Your task to perform on an android device: see sites visited before in the chrome app Image 0: 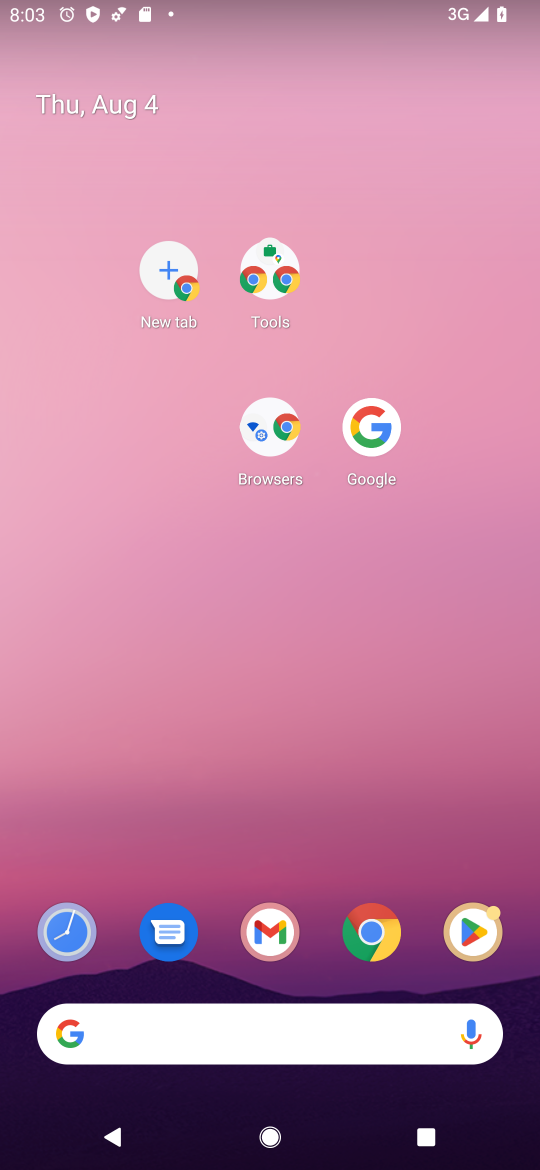
Step 0: drag from (405, 1123) to (259, 444)
Your task to perform on an android device: see sites visited before in the chrome app Image 1: 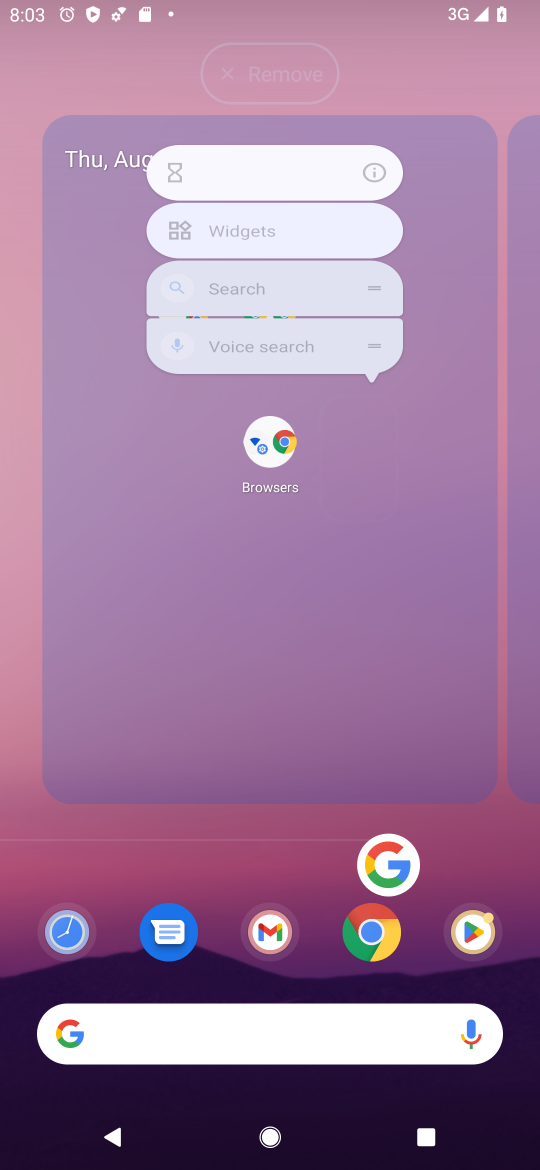
Step 1: drag from (260, 799) to (257, 377)
Your task to perform on an android device: see sites visited before in the chrome app Image 2: 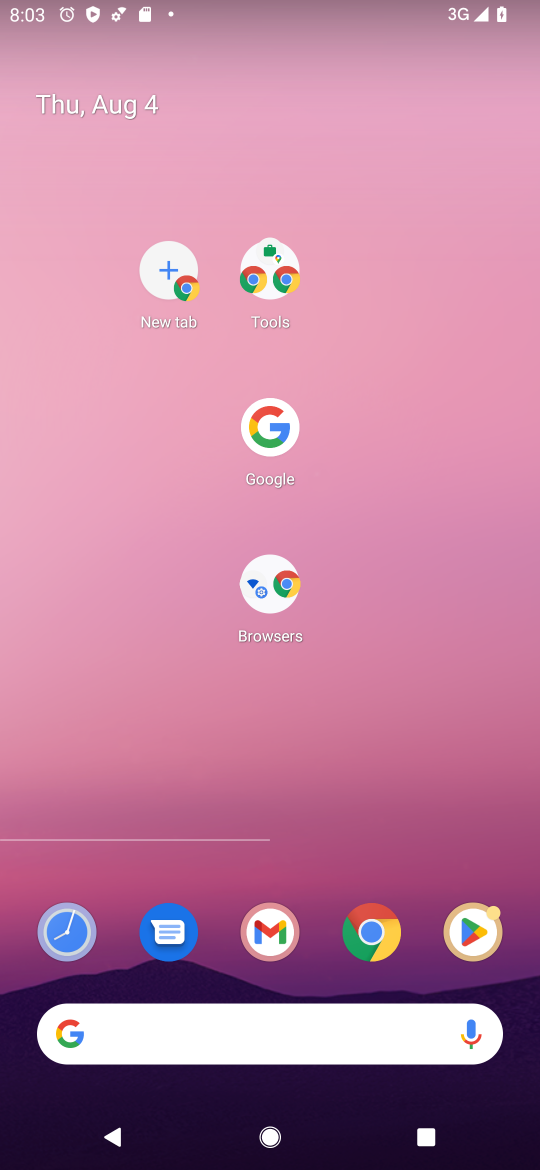
Step 2: drag from (354, 594) to (321, 311)
Your task to perform on an android device: see sites visited before in the chrome app Image 3: 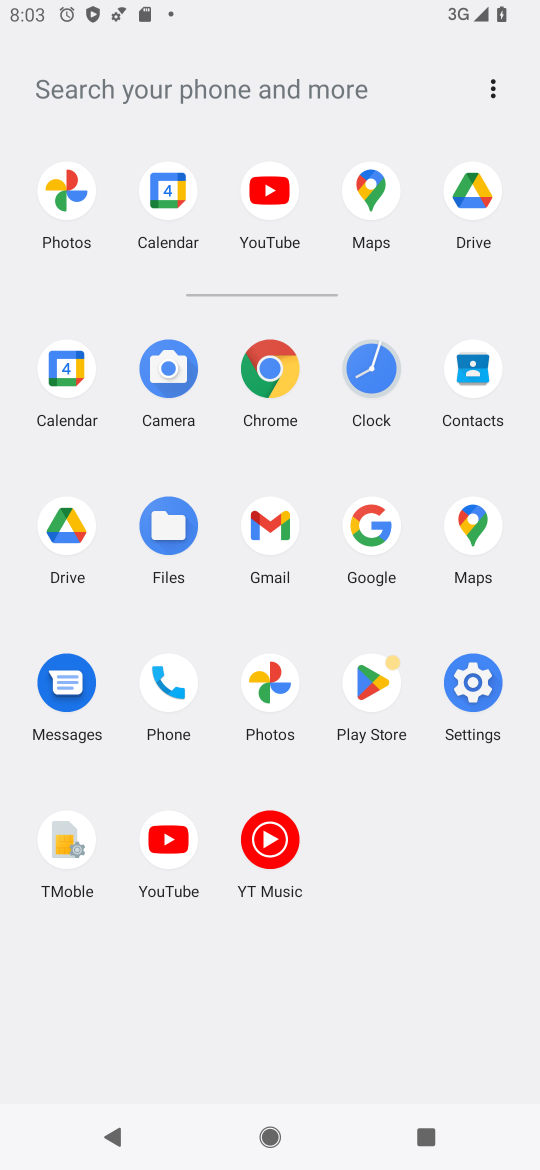
Step 3: press back button
Your task to perform on an android device: see sites visited before in the chrome app Image 4: 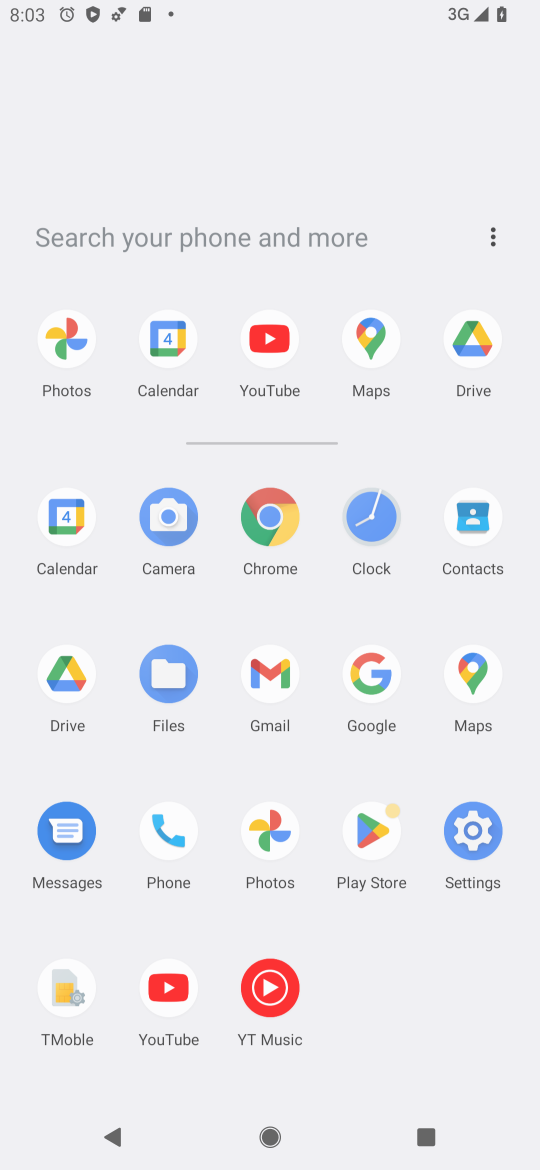
Step 4: press back button
Your task to perform on an android device: see sites visited before in the chrome app Image 5: 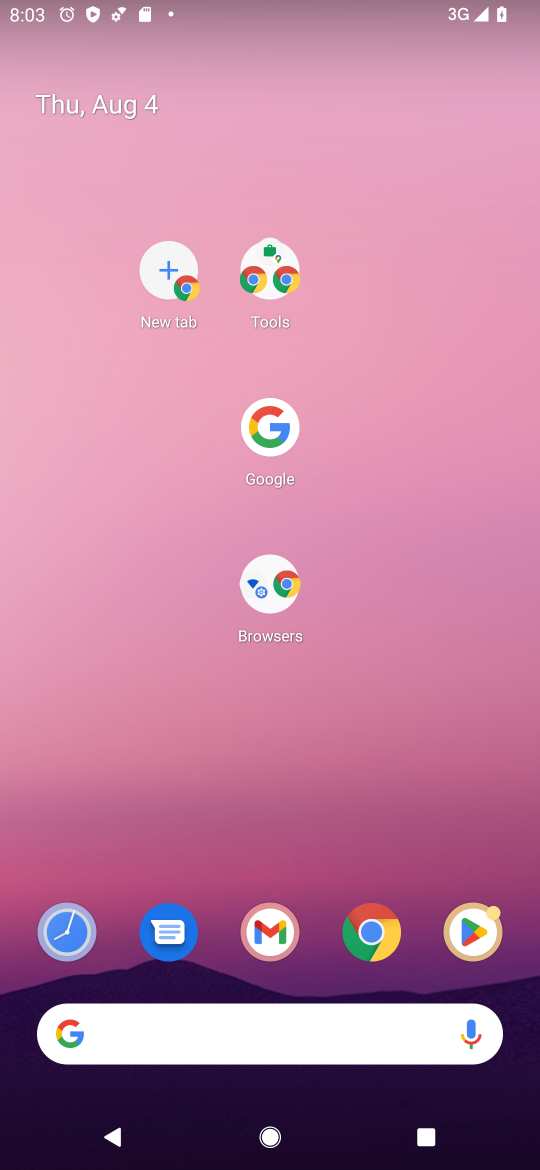
Step 5: drag from (243, 266) to (284, 234)
Your task to perform on an android device: see sites visited before in the chrome app Image 6: 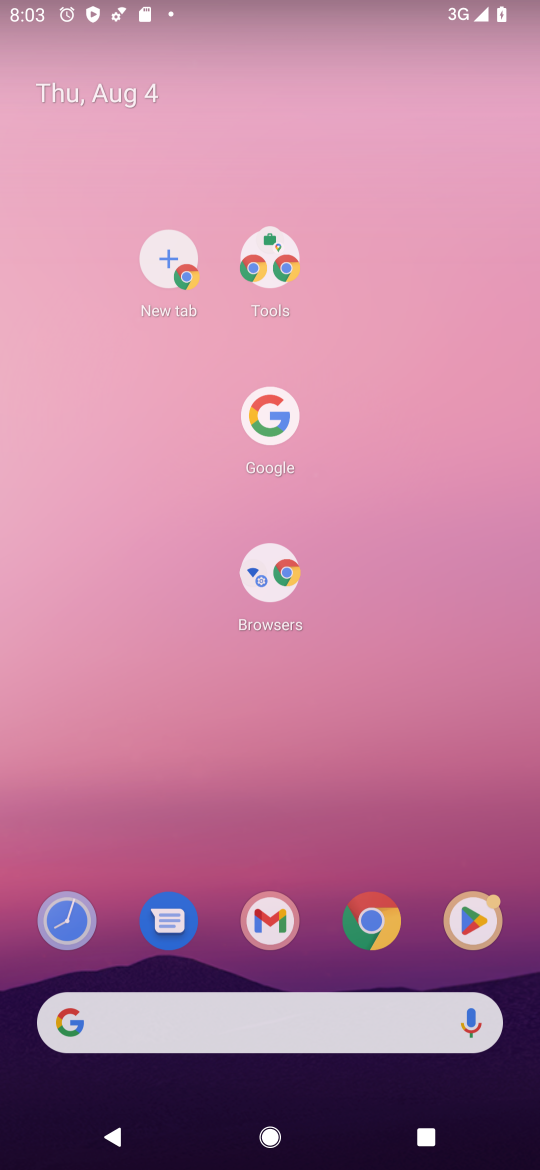
Step 6: drag from (289, 629) to (270, 62)
Your task to perform on an android device: see sites visited before in the chrome app Image 7: 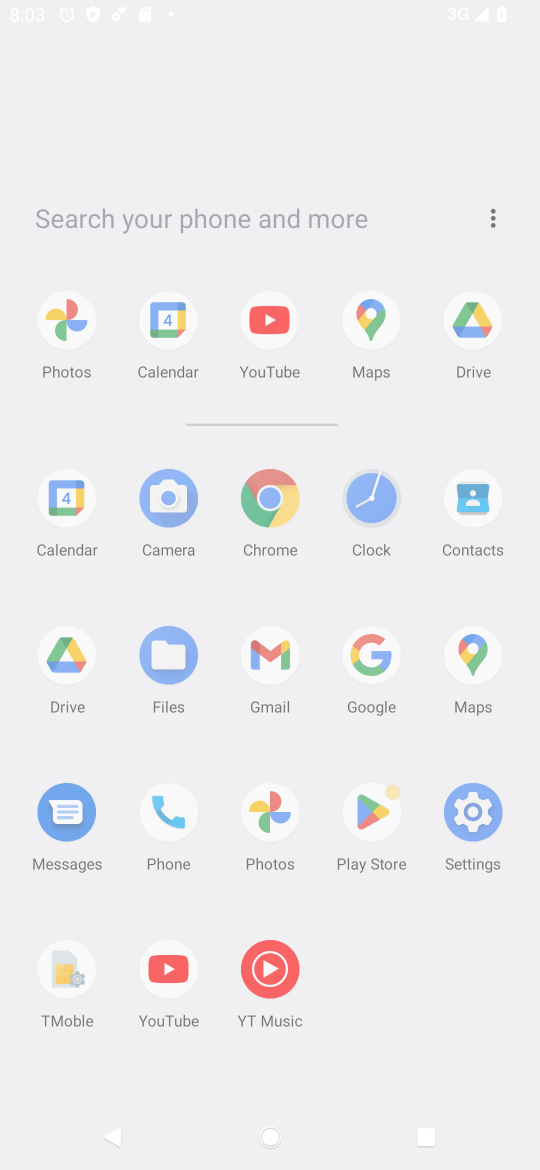
Step 7: drag from (235, 686) to (228, 71)
Your task to perform on an android device: see sites visited before in the chrome app Image 8: 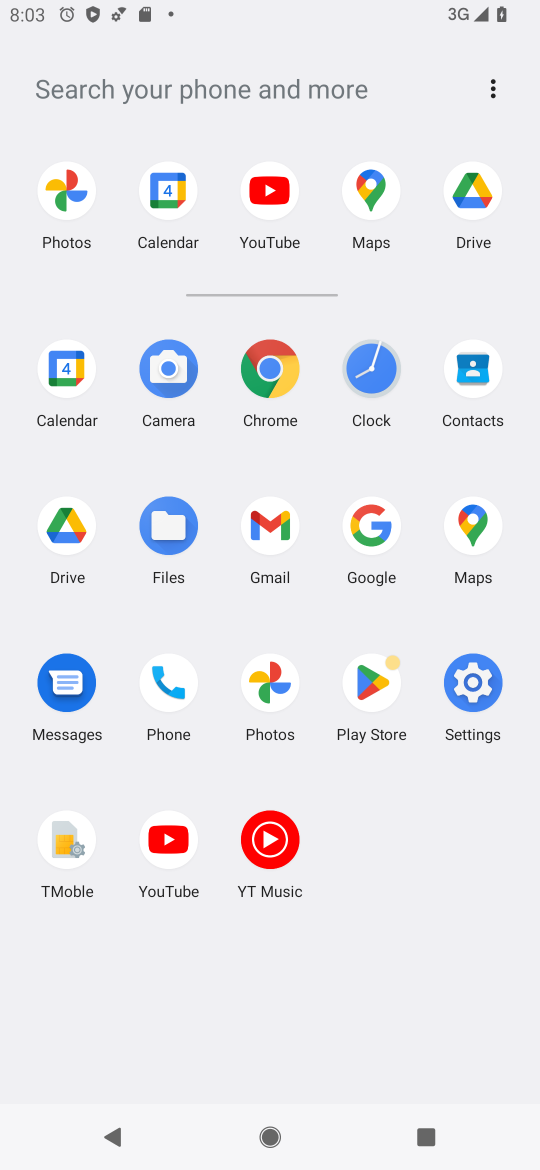
Step 8: click (270, 367)
Your task to perform on an android device: see sites visited before in the chrome app Image 9: 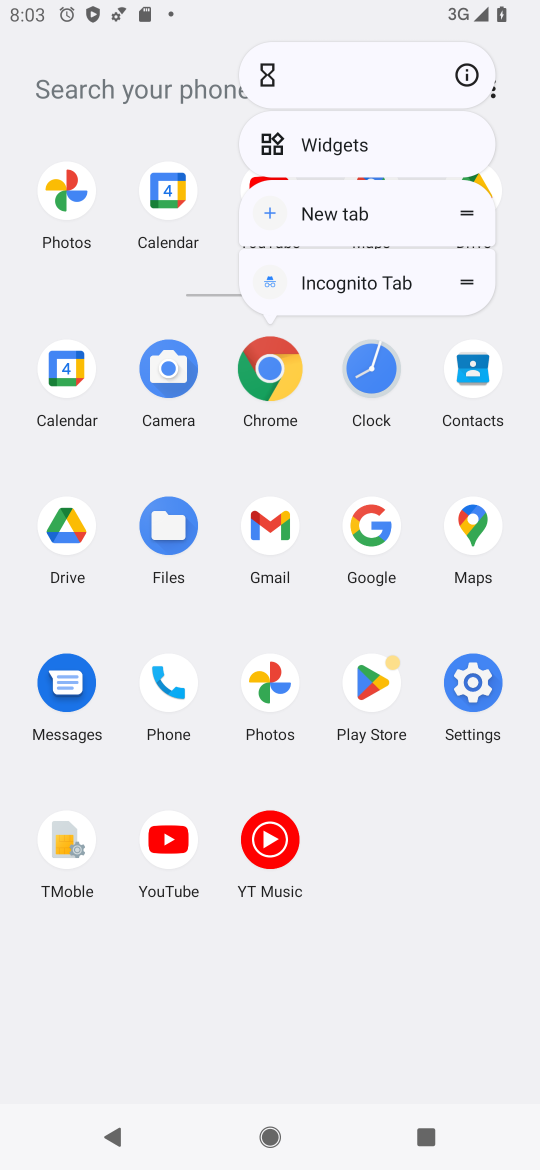
Step 9: click (271, 366)
Your task to perform on an android device: see sites visited before in the chrome app Image 10: 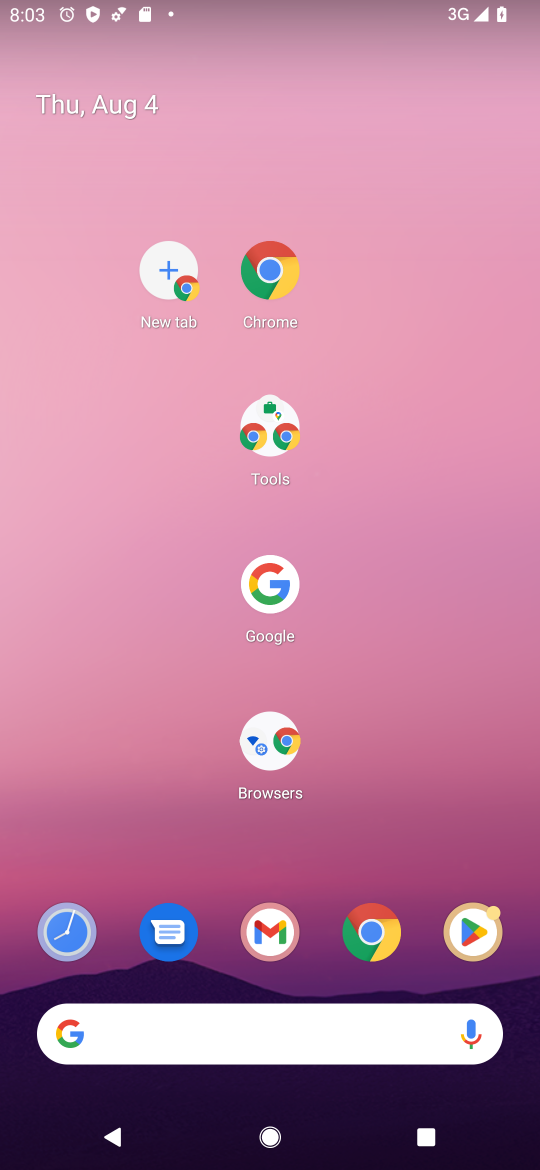
Step 10: drag from (325, 681) to (250, 293)
Your task to perform on an android device: see sites visited before in the chrome app Image 11: 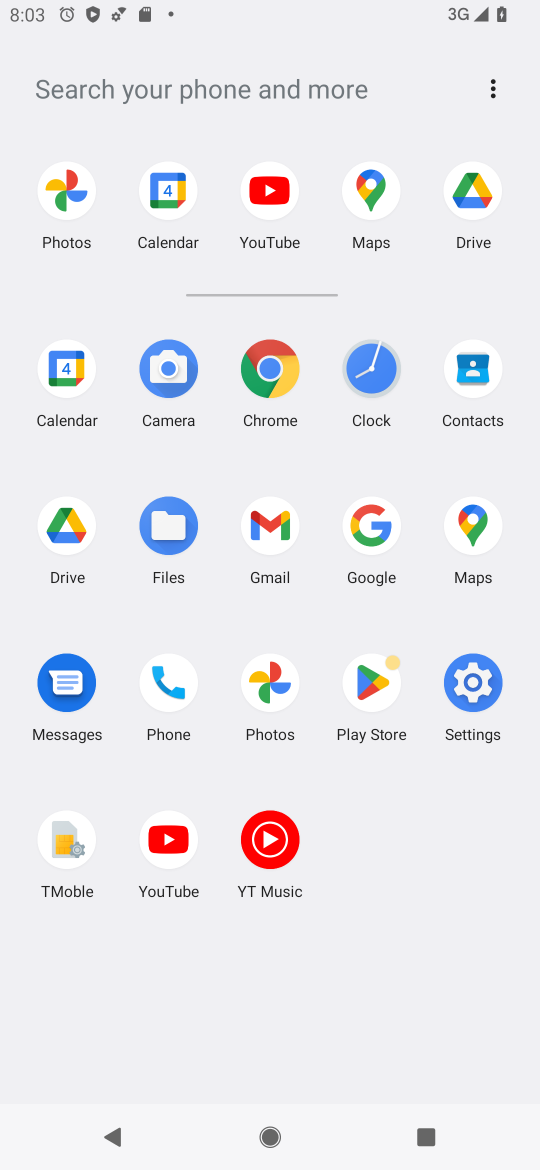
Step 11: click (273, 376)
Your task to perform on an android device: see sites visited before in the chrome app Image 12: 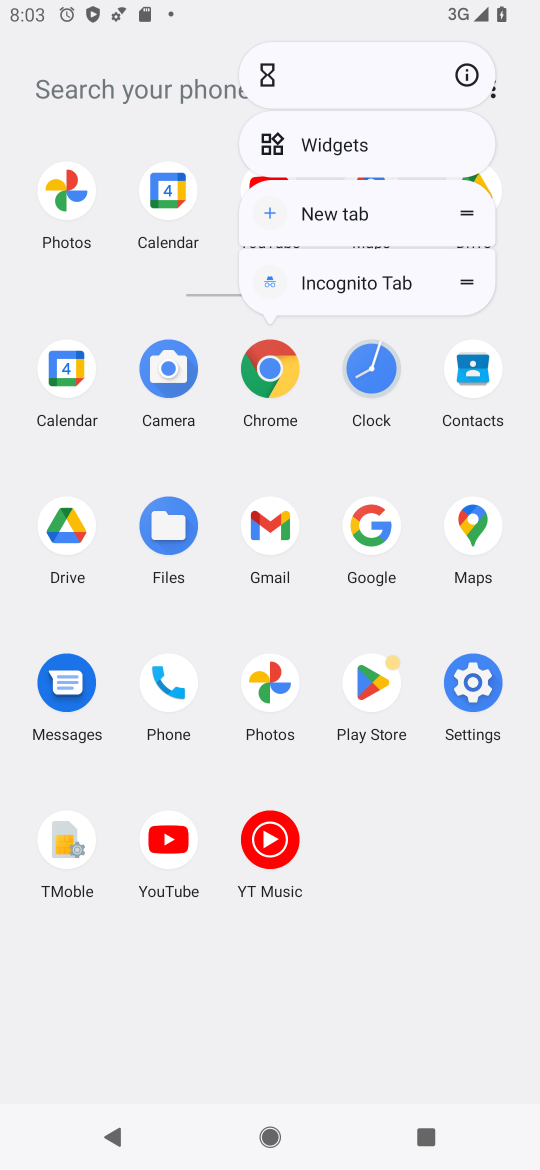
Step 12: click (268, 364)
Your task to perform on an android device: see sites visited before in the chrome app Image 13: 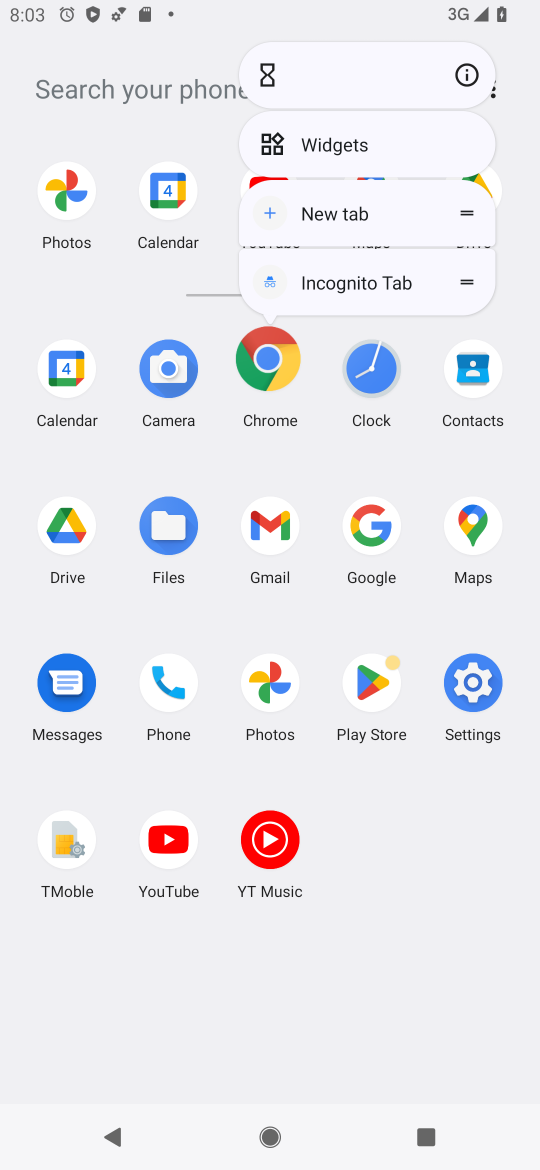
Step 13: click (266, 354)
Your task to perform on an android device: see sites visited before in the chrome app Image 14: 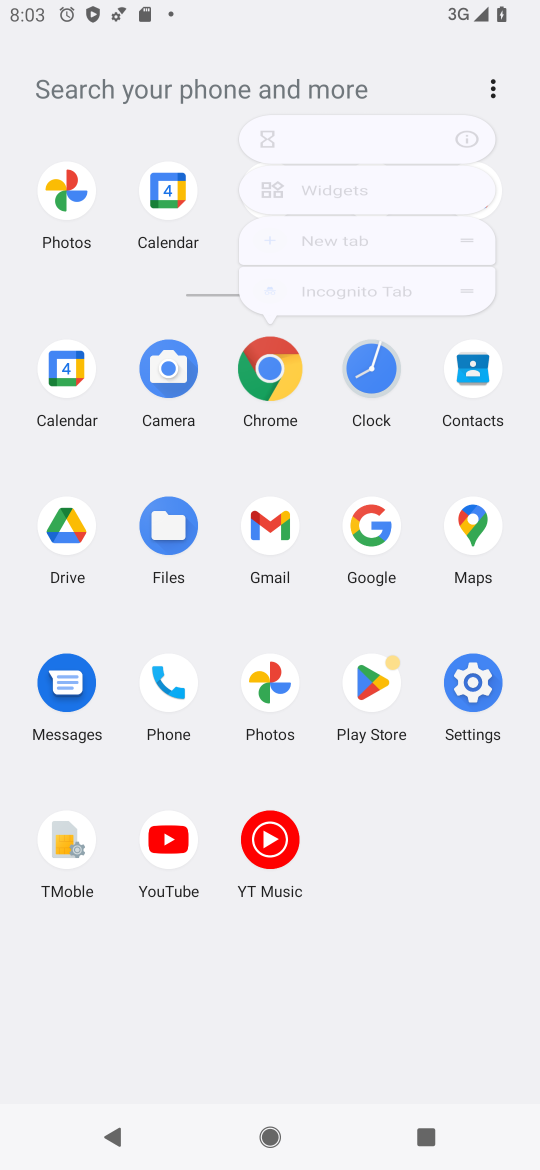
Step 14: click (266, 358)
Your task to perform on an android device: see sites visited before in the chrome app Image 15: 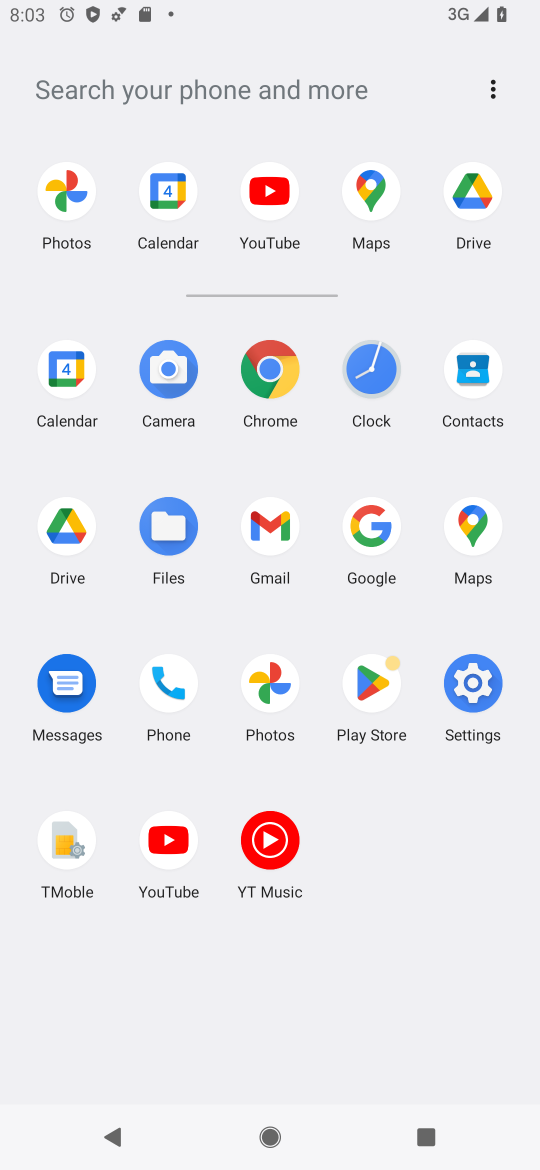
Step 15: click (266, 368)
Your task to perform on an android device: see sites visited before in the chrome app Image 16: 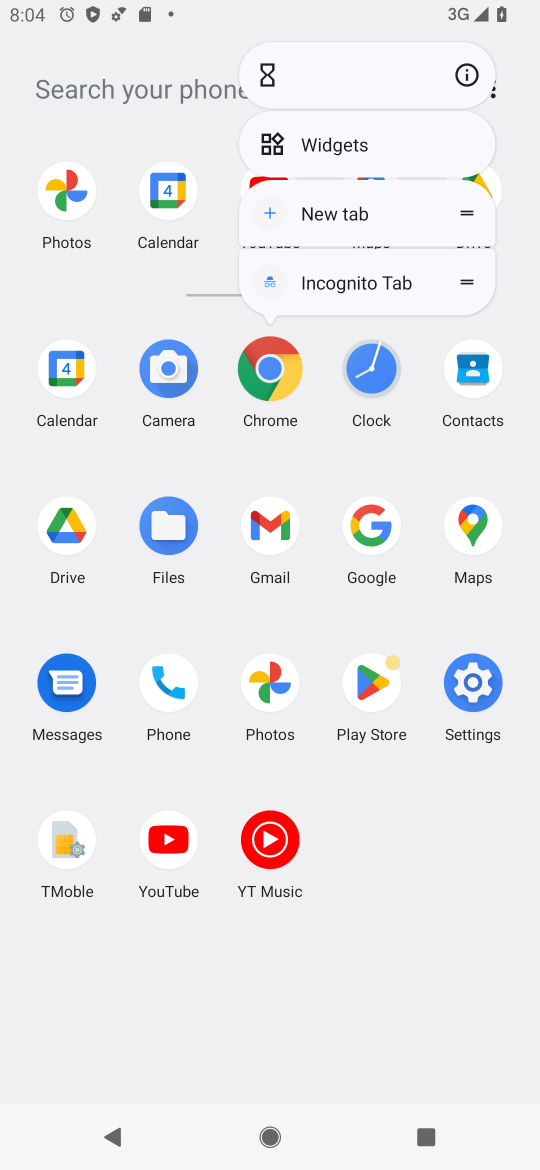
Step 16: click (274, 371)
Your task to perform on an android device: see sites visited before in the chrome app Image 17: 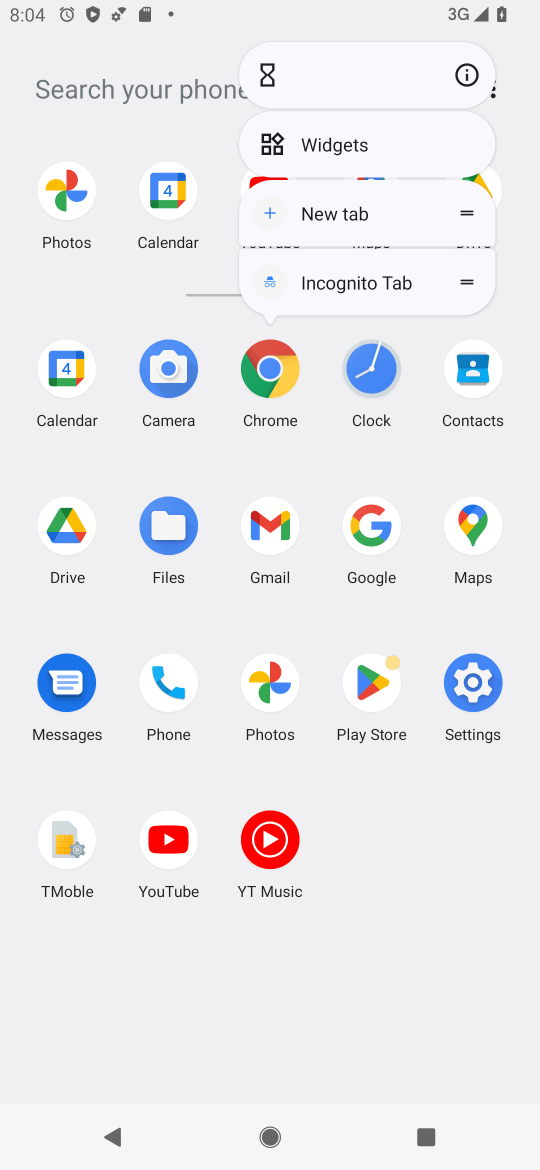
Step 17: click (267, 411)
Your task to perform on an android device: see sites visited before in the chrome app Image 18: 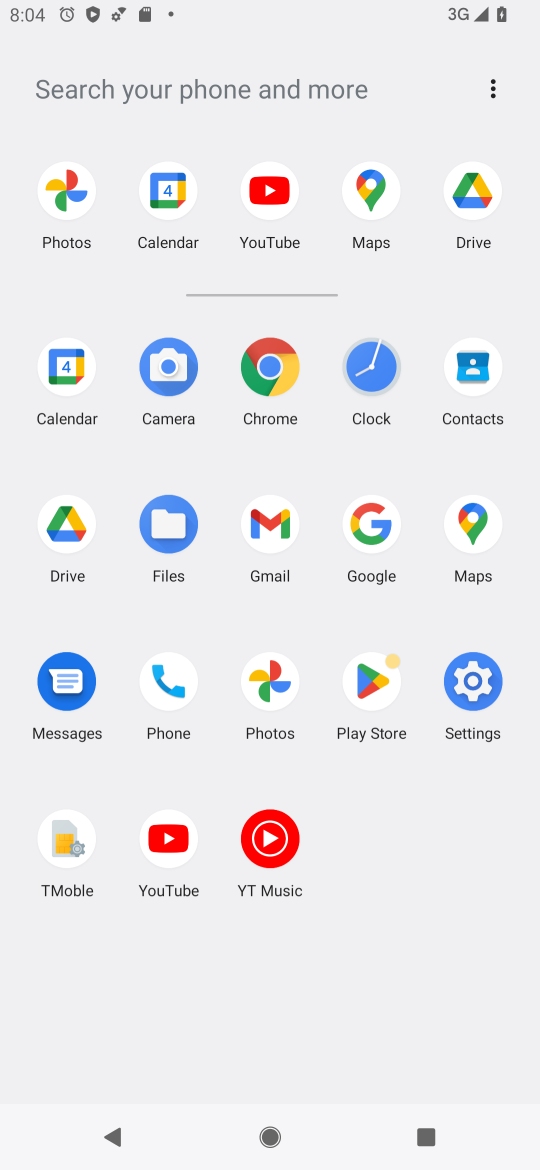
Step 18: click (276, 383)
Your task to perform on an android device: see sites visited before in the chrome app Image 19: 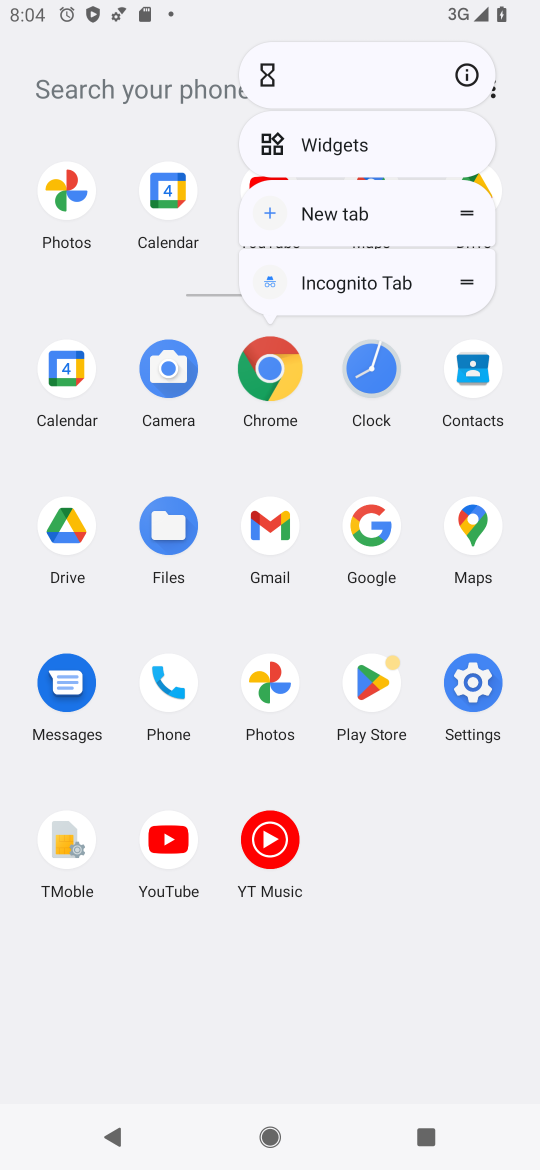
Step 19: click (276, 383)
Your task to perform on an android device: see sites visited before in the chrome app Image 20: 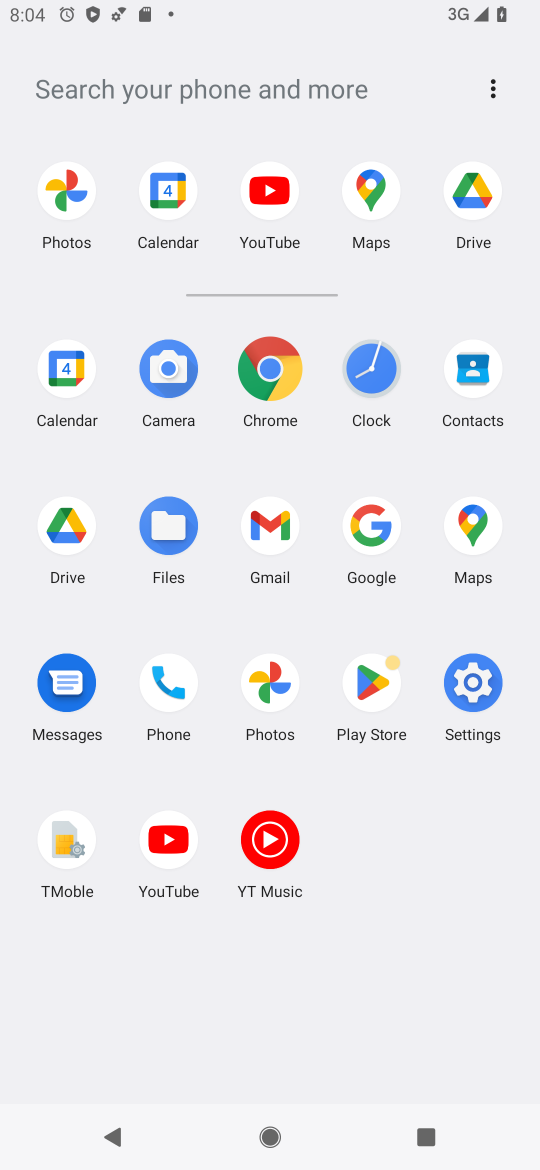
Step 20: click (338, 209)
Your task to perform on an android device: see sites visited before in the chrome app Image 21: 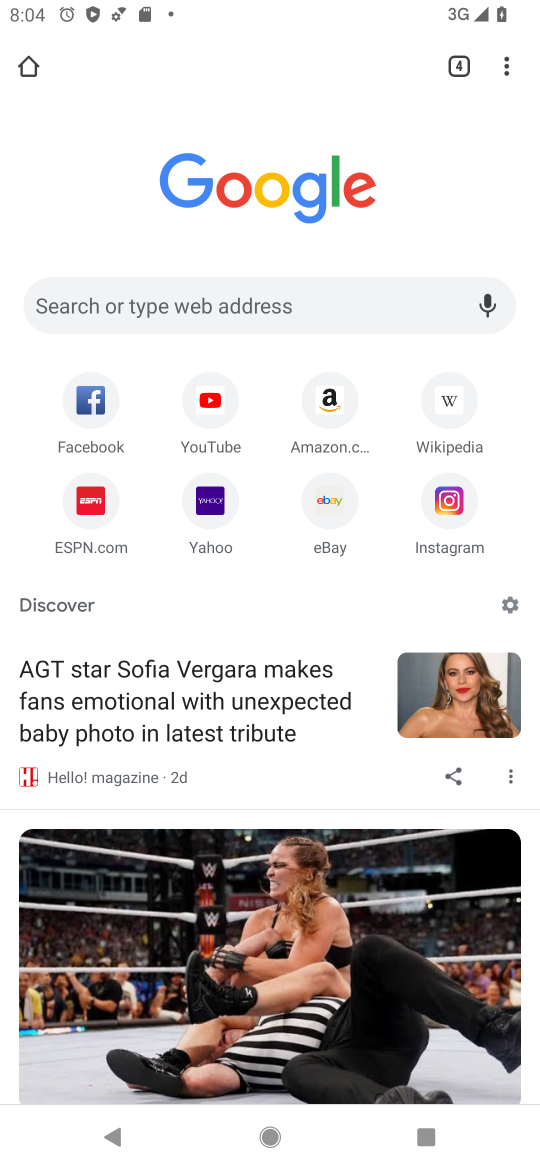
Step 21: drag from (502, 56) to (335, 500)
Your task to perform on an android device: see sites visited before in the chrome app Image 22: 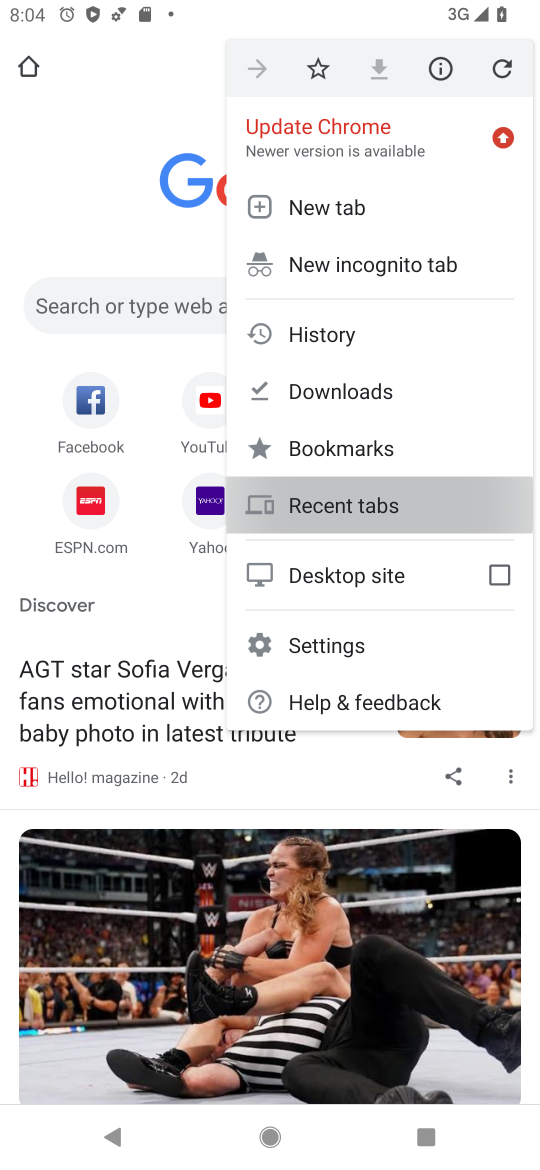
Step 22: click (335, 500)
Your task to perform on an android device: see sites visited before in the chrome app Image 23: 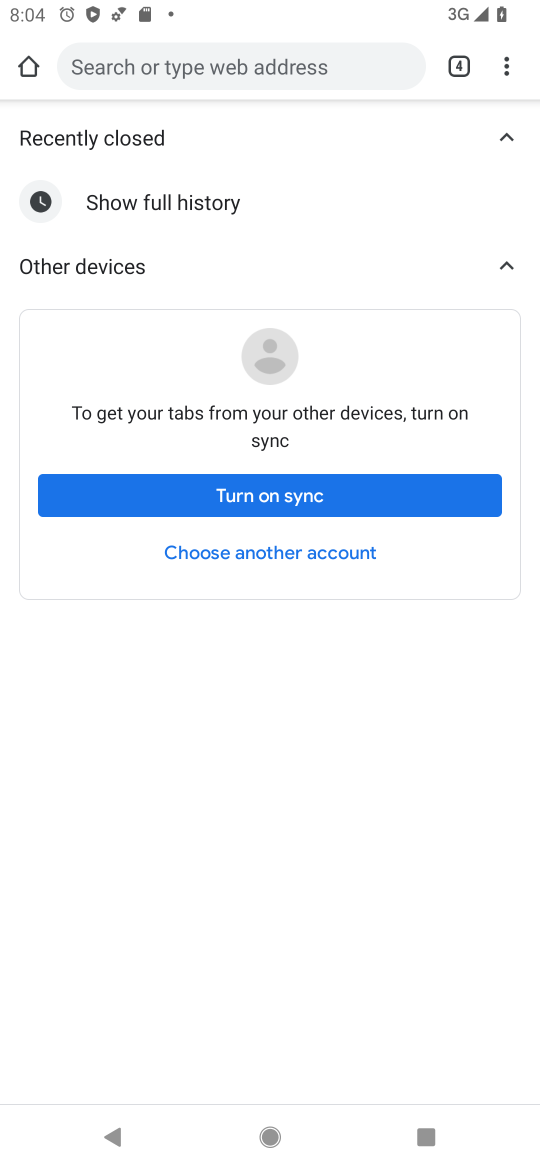
Step 23: task complete